Your task to perform on an android device: clear history in the chrome app Image 0: 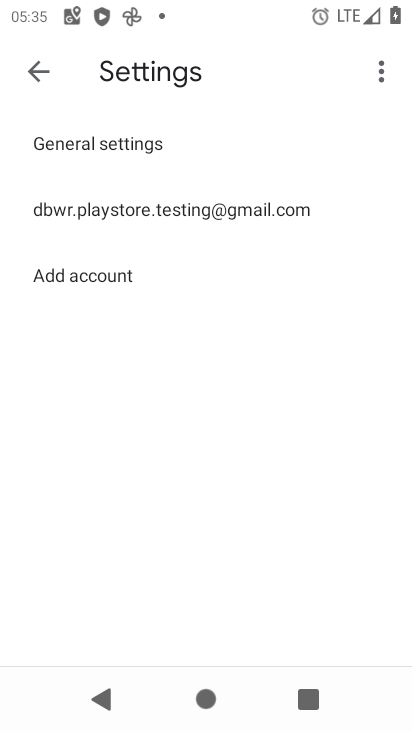
Step 0: press home button
Your task to perform on an android device: clear history in the chrome app Image 1: 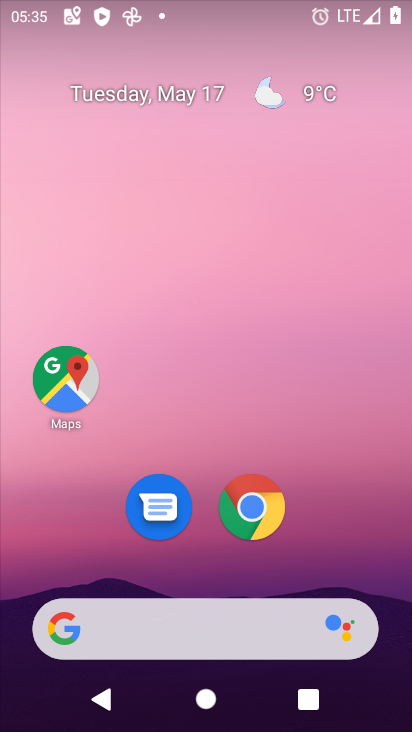
Step 1: drag from (311, 525) to (202, 41)
Your task to perform on an android device: clear history in the chrome app Image 2: 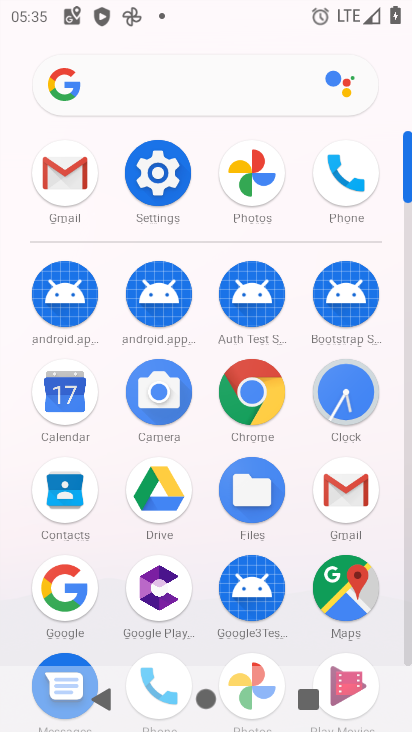
Step 2: click (253, 382)
Your task to perform on an android device: clear history in the chrome app Image 3: 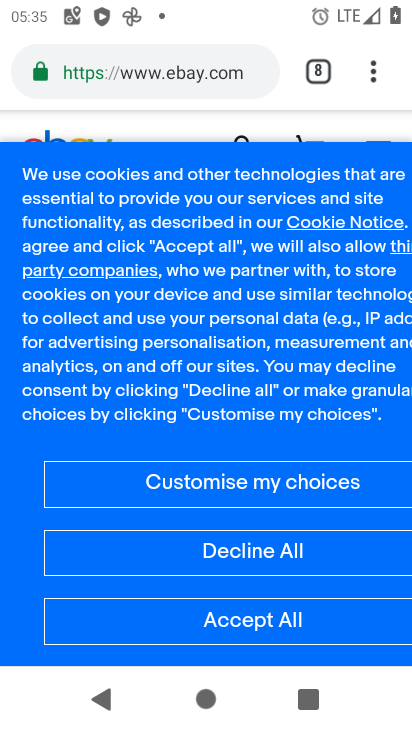
Step 3: click (373, 72)
Your task to perform on an android device: clear history in the chrome app Image 4: 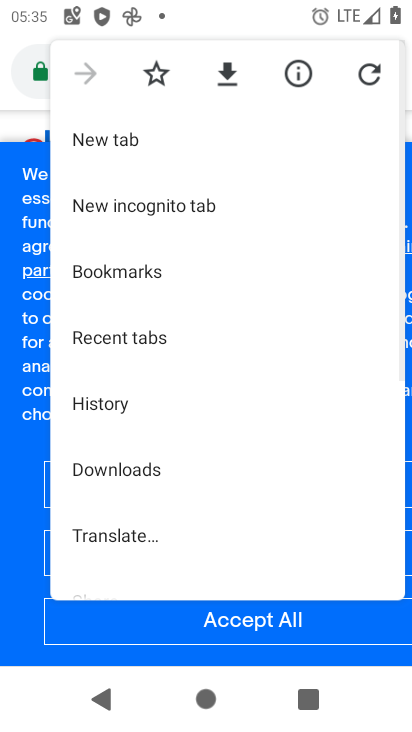
Step 4: click (152, 388)
Your task to perform on an android device: clear history in the chrome app Image 5: 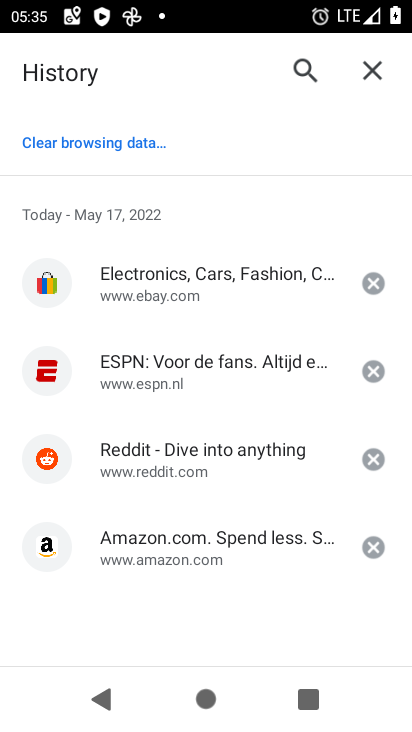
Step 5: click (113, 138)
Your task to perform on an android device: clear history in the chrome app Image 6: 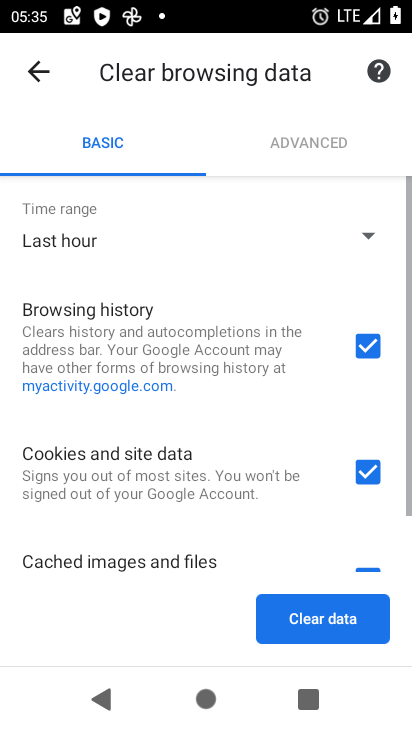
Step 6: click (327, 624)
Your task to perform on an android device: clear history in the chrome app Image 7: 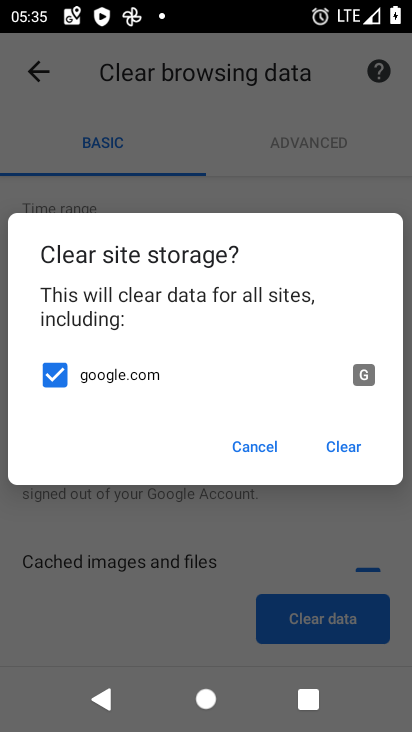
Step 7: click (353, 432)
Your task to perform on an android device: clear history in the chrome app Image 8: 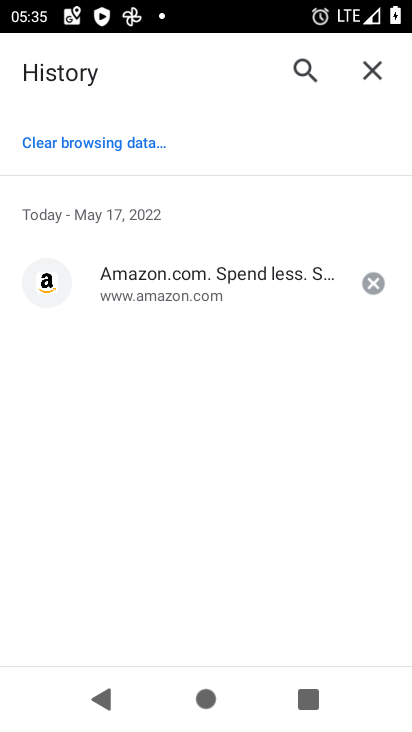
Step 8: task complete